Your task to perform on an android device: turn pop-ups off in chrome Image 0: 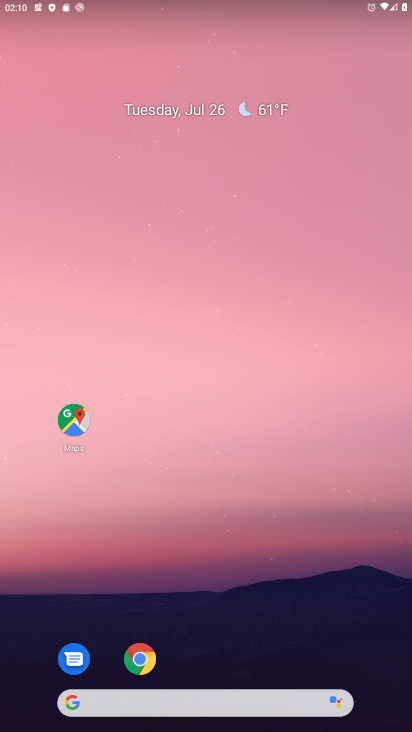
Step 0: drag from (290, 609) to (230, 148)
Your task to perform on an android device: turn pop-ups off in chrome Image 1: 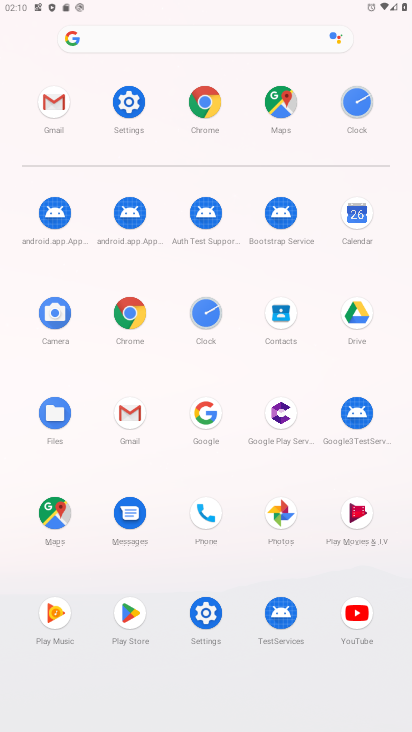
Step 1: click (126, 312)
Your task to perform on an android device: turn pop-ups off in chrome Image 2: 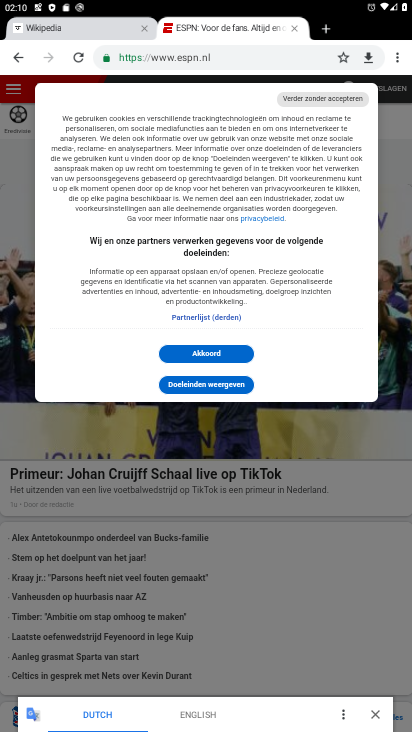
Step 2: drag from (399, 55) to (278, 388)
Your task to perform on an android device: turn pop-ups off in chrome Image 3: 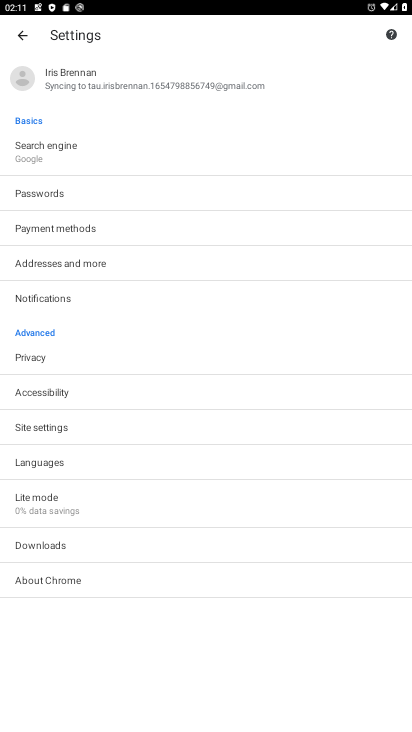
Step 3: click (43, 425)
Your task to perform on an android device: turn pop-ups off in chrome Image 4: 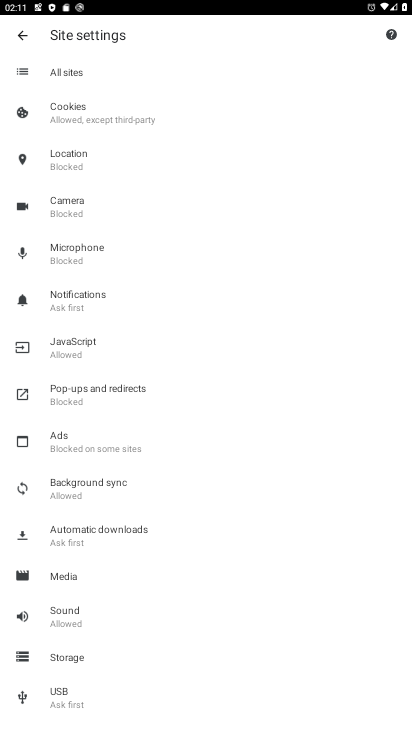
Step 4: click (93, 390)
Your task to perform on an android device: turn pop-ups off in chrome Image 5: 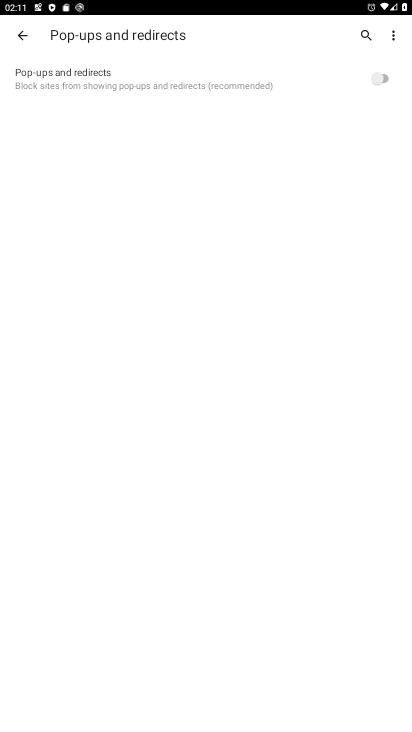
Step 5: task complete